Your task to perform on an android device: delete browsing data in the chrome app Image 0: 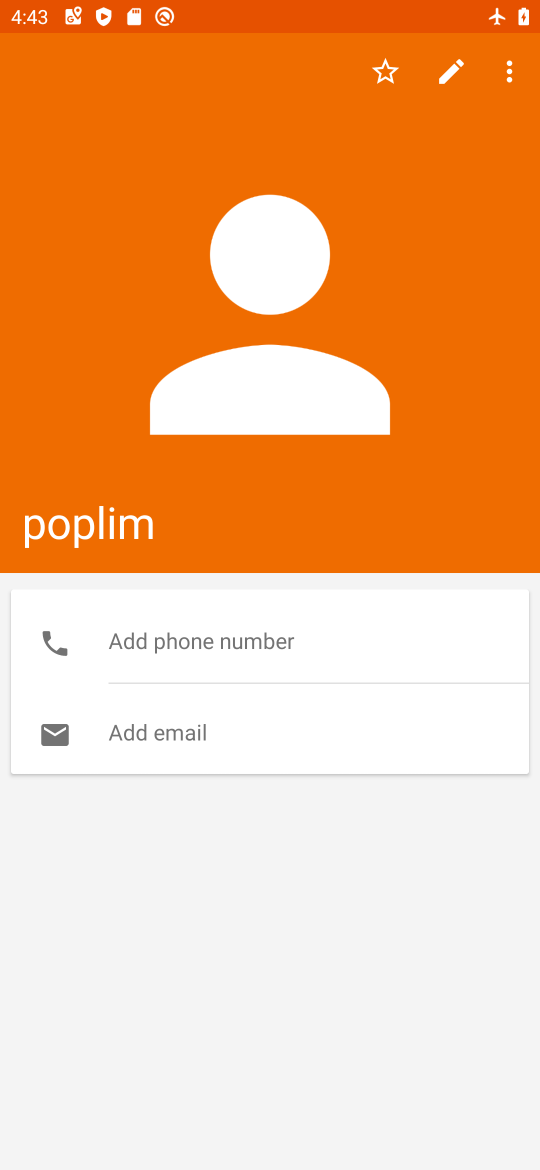
Step 0: press home button
Your task to perform on an android device: delete browsing data in the chrome app Image 1: 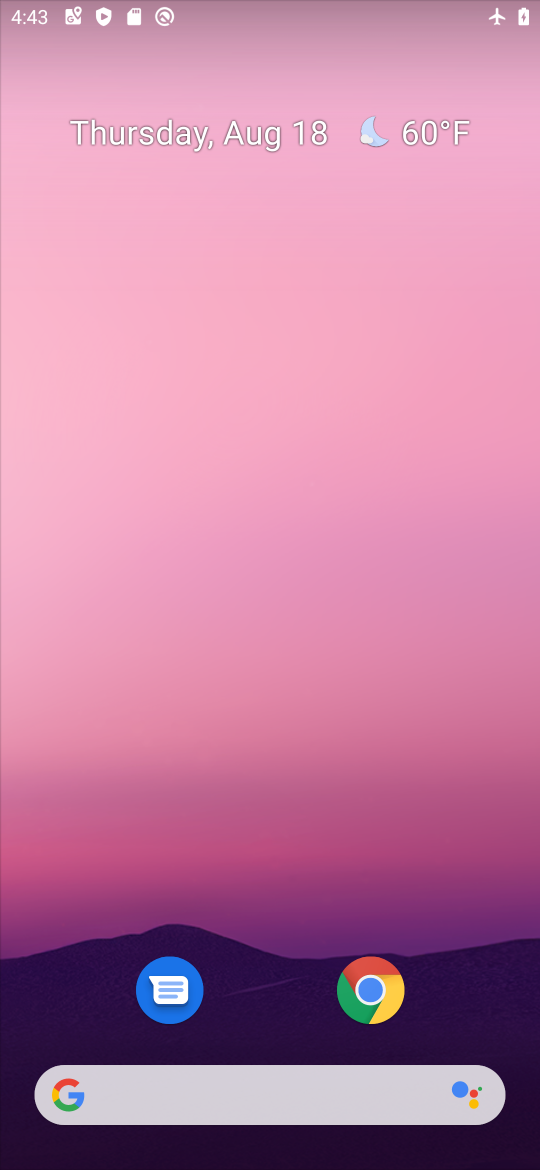
Step 1: drag from (328, 838) to (392, 21)
Your task to perform on an android device: delete browsing data in the chrome app Image 2: 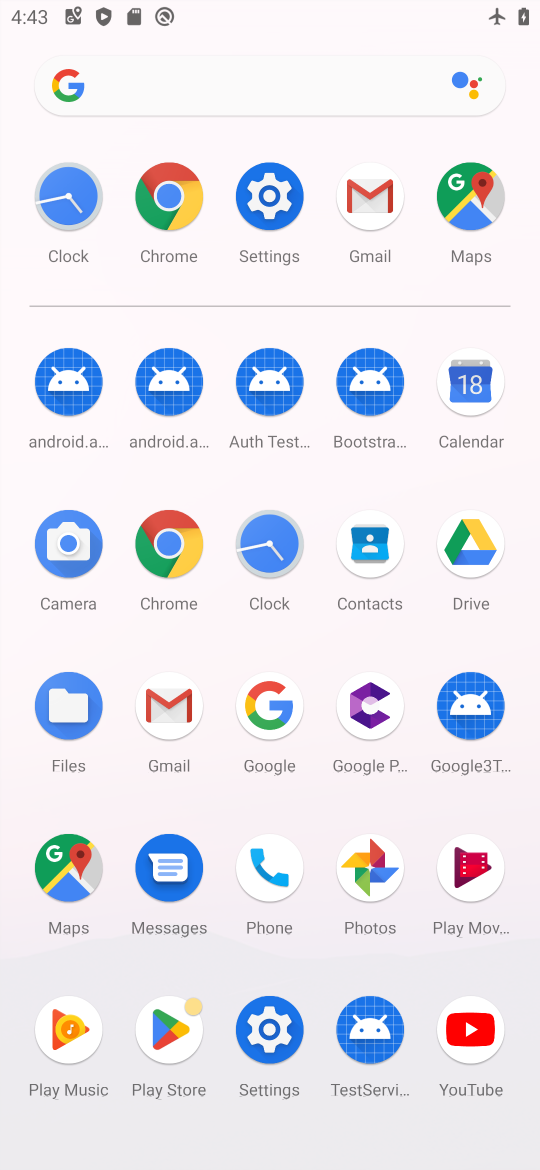
Step 2: click (171, 538)
Your task to perform on an android device: delete browsing data in the chrome app Image 3: 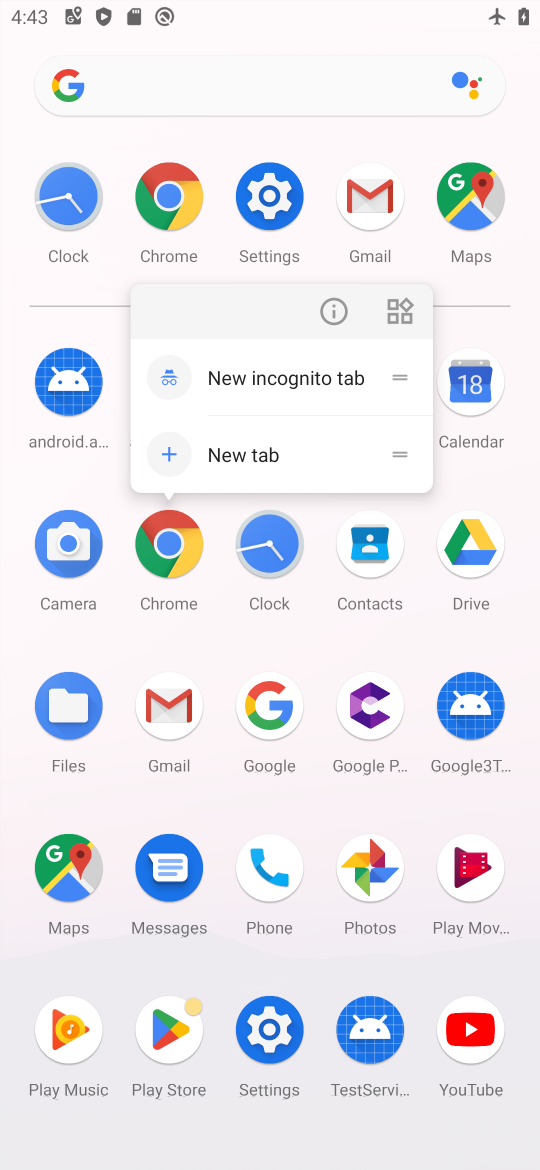
Step 3: click (163, 555)
Your task to perform on an android device: delete browsing data in the chrome app Image 4: 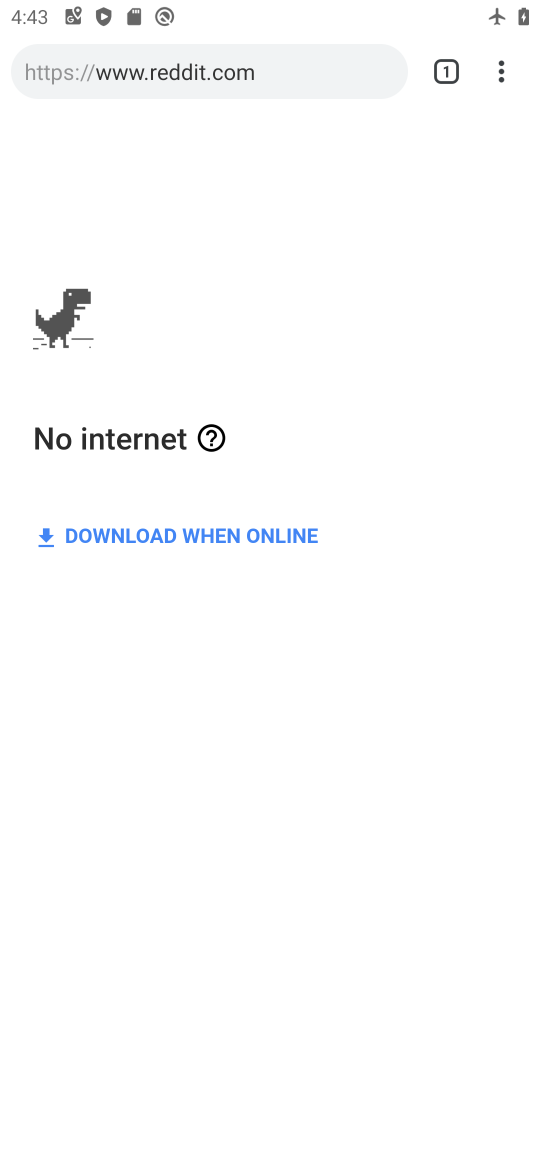
Step 4: click (519, 64)
Your task to perform on an android device: delete browsing data in the chrome app Image 5: 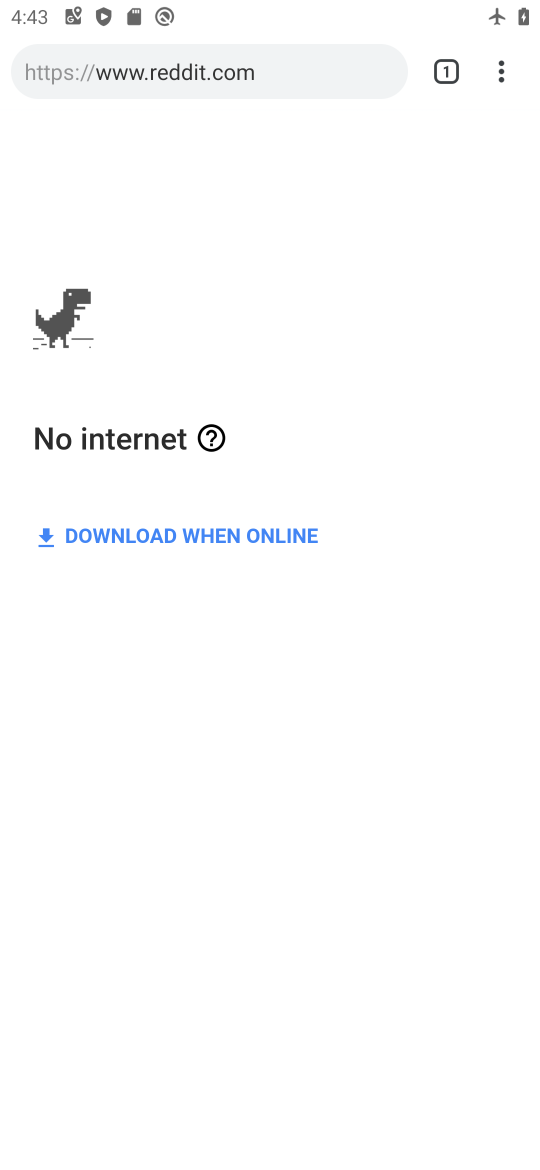
Step 5: task complete